Your task to perform on an android device: Show me the alarms in the clock app Image 0: 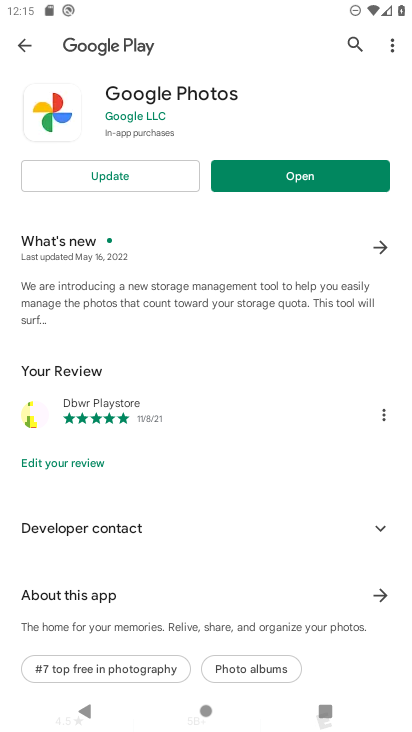
Step 0: press home button
Your task to perform on an android device: Show me the alarms in the clock app Image 1: 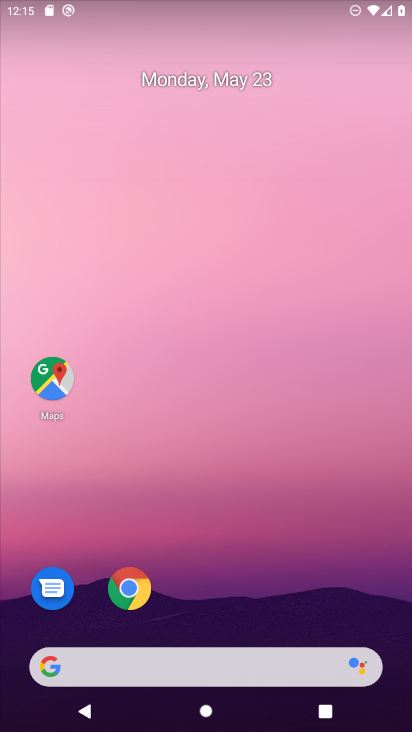
Step 1: drag from (269, 693) to (358, 261)
Your task to perform on an android device: Show me the alarms in the clock app Image 2: 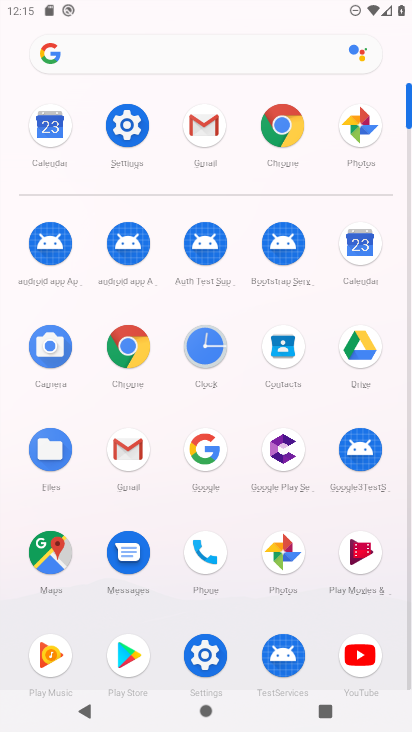
Step 2: click (196, 336)
Your task to perform on an android device: Show me the alarms in the clock app Image 3: 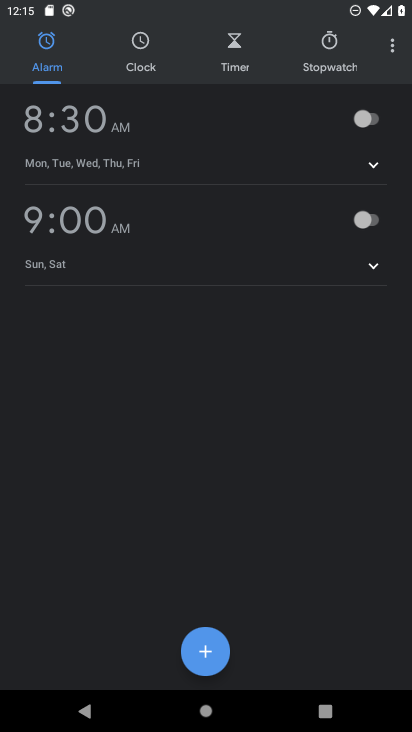
Step 3: click (133, 153)
Your task to perform on an android device: Show me the alarms in the clock app Image 4: 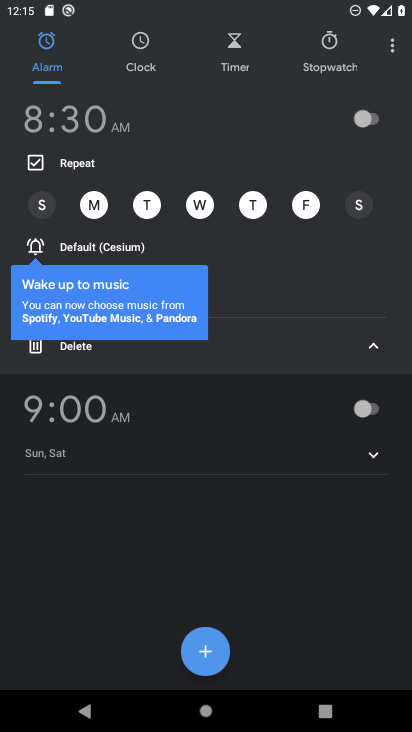
Step 4: click (373, 122)
Your task to perform on an android device: Show me the alarms in the clock app Image 5: 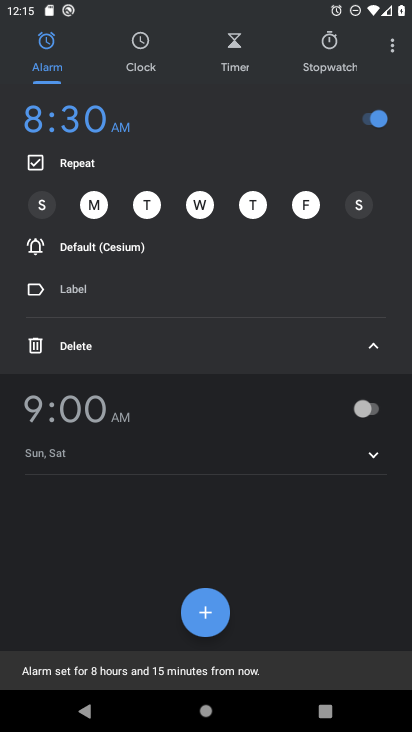
Step 5: task complete